Your task to perform on an android device: turn on the 24-hour format for clock Image 0: 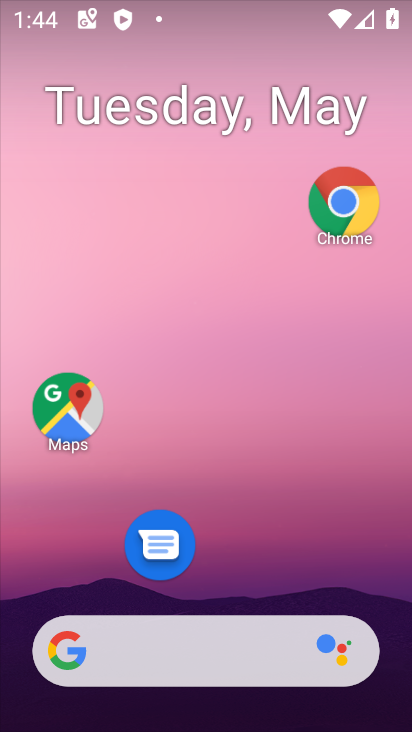
Step 0: drag from (196, 593) to (240, 43)
Your task to perform on an android device: turn on the 24-hour format for clock Image 1: 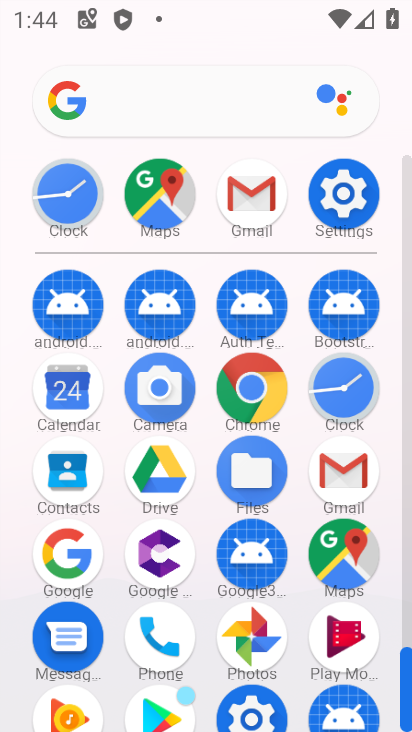
Step 1: click (342, 371)
Your task to perform on an android device: turn on the 24-hour format for clock Image 2: 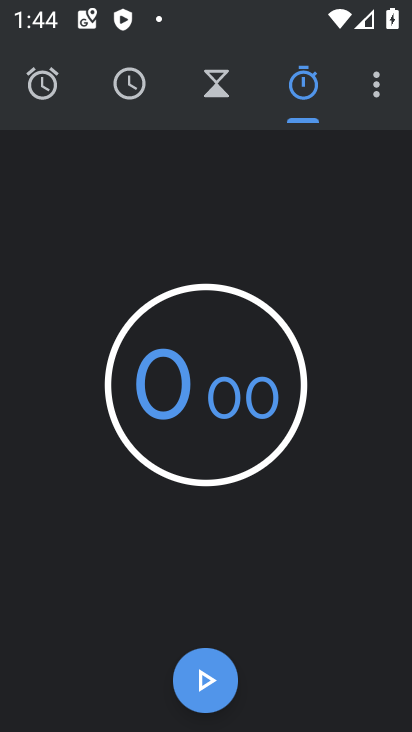
Step 2: click (374, 90)
Your task to perform on an android device: turn on the 24-hour format for clock Image 3: 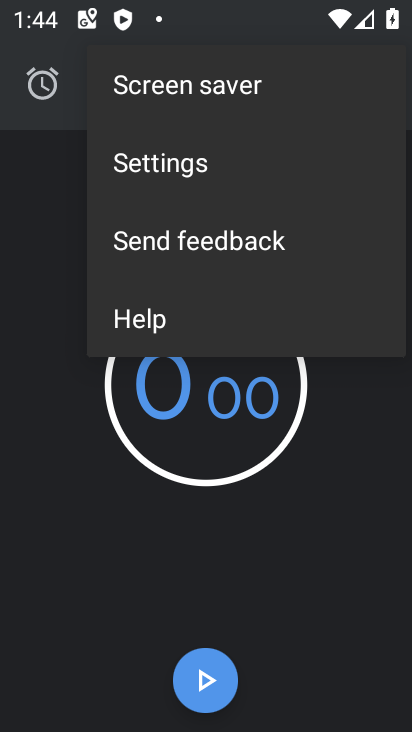
Step 3: click (226, 150)
Your task to perform on an android device: turn on the 24-hour format for clock Image 4: 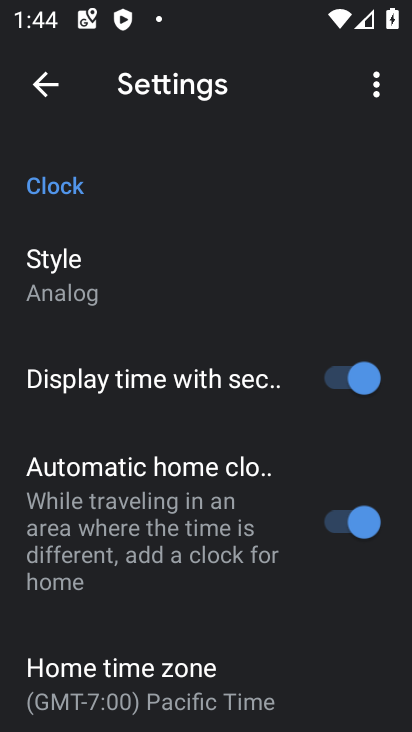
Step 4: drag from (72, 722) to (225, 211)
Your task to perform on an android device: turn on the 24-hour format for clock Image 5: 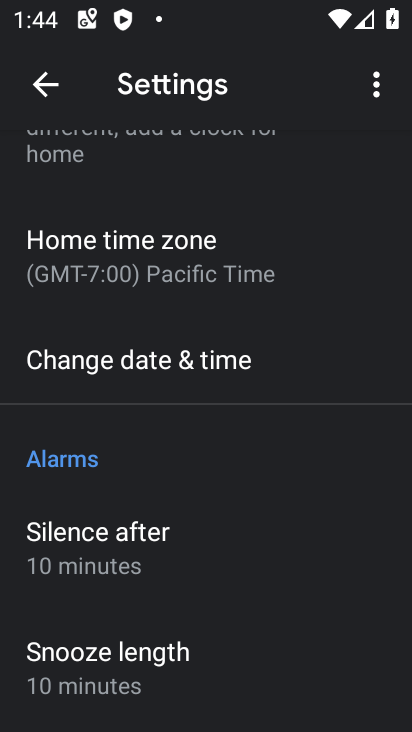
Step 5: click (168, 352)
Your task to perform on an android device: turn on the 24-hour format for clock Image 6: 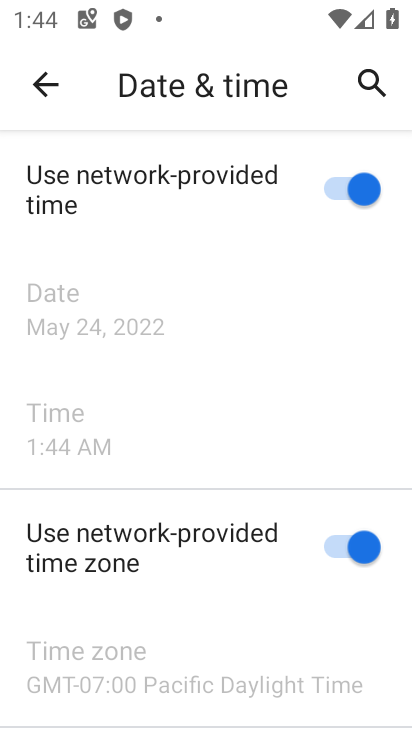
Step 6: drag from (206, 650) to (284, 89)
Your task to perform on an android device: turn on the 24-hour format for clock Image 7: 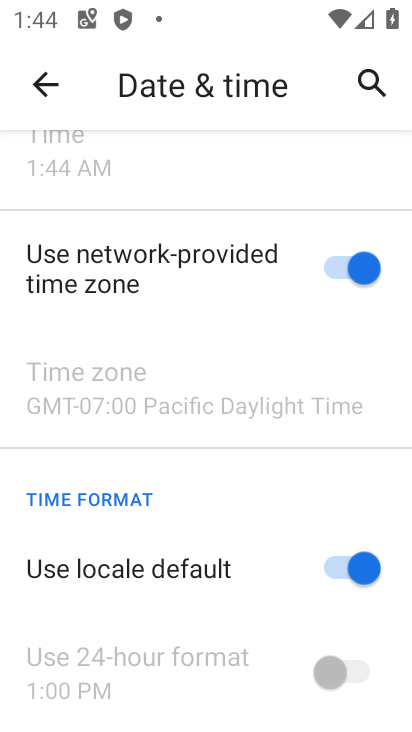
Step 7: click (336, 565)
Your task to perform on an android device: turn on the 24-hour format for clock Image 8: 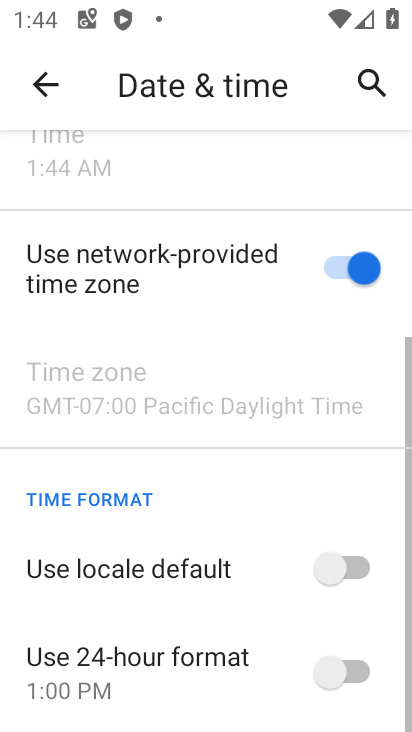
Step 8: click (357, 663)
Your task to perform on an android device: turn on the 24-hour format for clock Image 9: 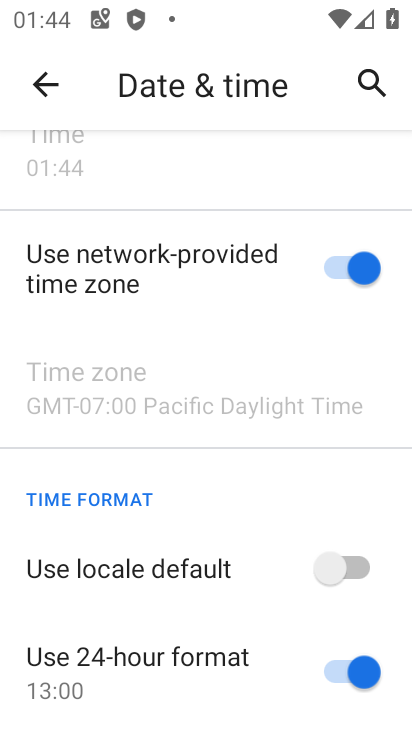
Step 9: task complete